Your task to perform on an android device: How much does a3 bedroom apartment rent for in Portland? Image 0: 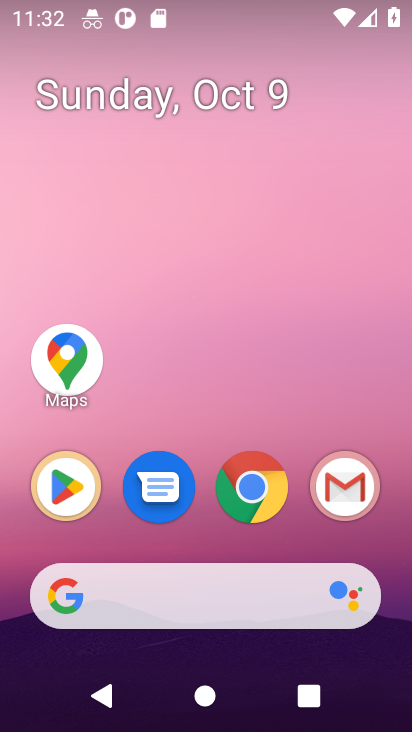
Step 0: click (249, 485)
Your task to perform on an android device: How much does a3 bedroom apartment rent for in Portland? Image 1: 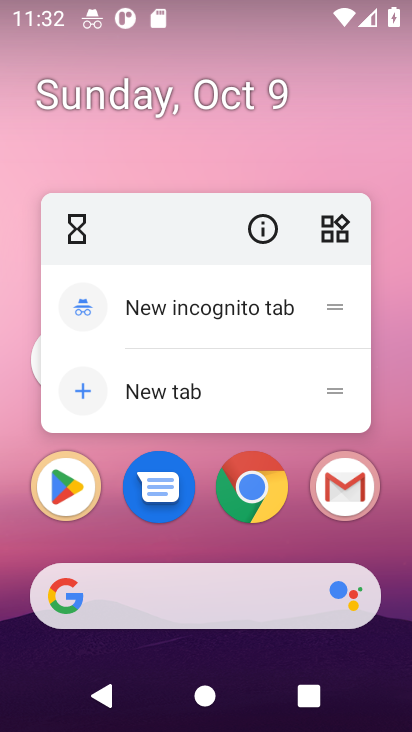
Step 1: click (249, 485)
Your task to perform on an android device: How much does a3 bedroom apartment rent for in Portland? Image 2: 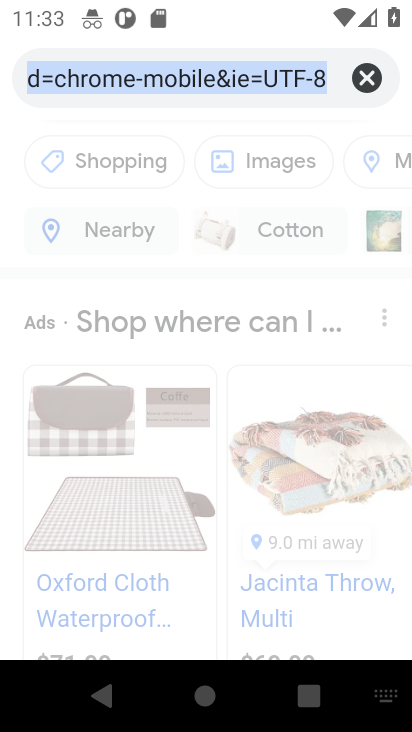
Step 2: type "3 bedroom apartment rent in Portland"
Your task to perform on an android device: How much does a3 bedroom apartment rent for in Portland? Image 3: 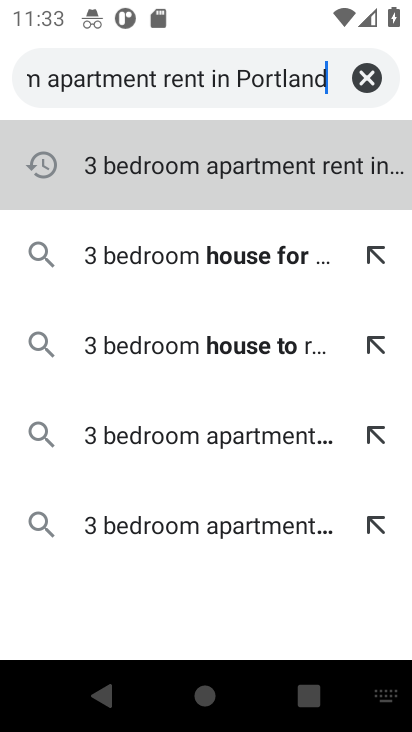
Step 3: type ""
Your task to perform on an android device: How much does a3 bedroom apartment rent for in Portland? Image 4: 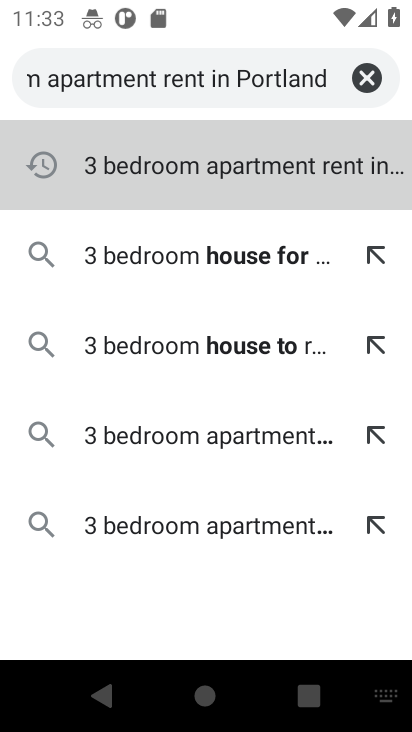
Step 4: press enter
Your task to perform on an android device: How much does a3 bedroom apartment rent for in Portland? Image 5: 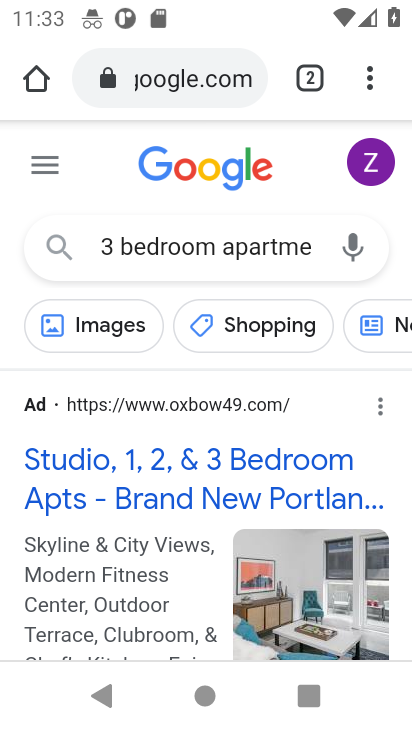
Step 5: drag from (162, 549) to (181, 190)
Your task to perform on an android device: How much does a3 bedroom apartment rent for in Portland? Image 6: 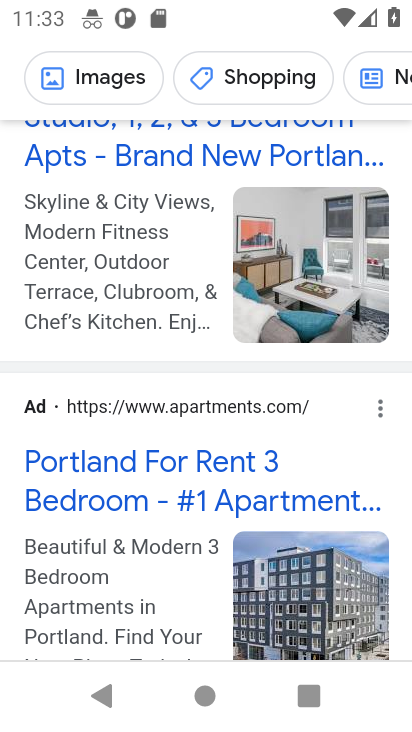
Step 6: click (121, 493)
Your task to perform on an android device: How much does a3 bedroom apartment rent for in Portland? Image 7: 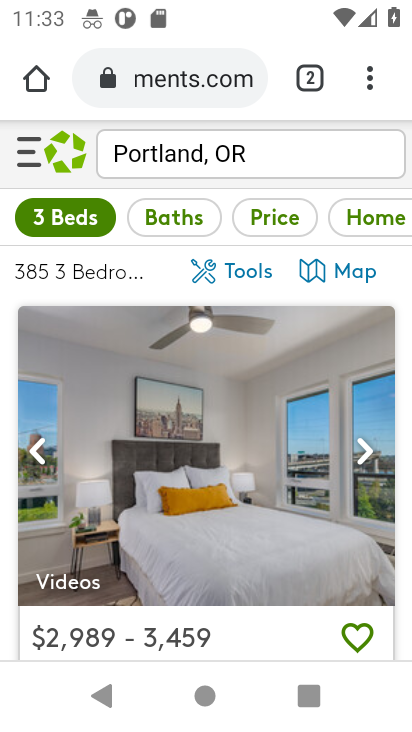
Step 7: task complete